Your task to perform on an android device: toggle improve location accuracy Image 0: 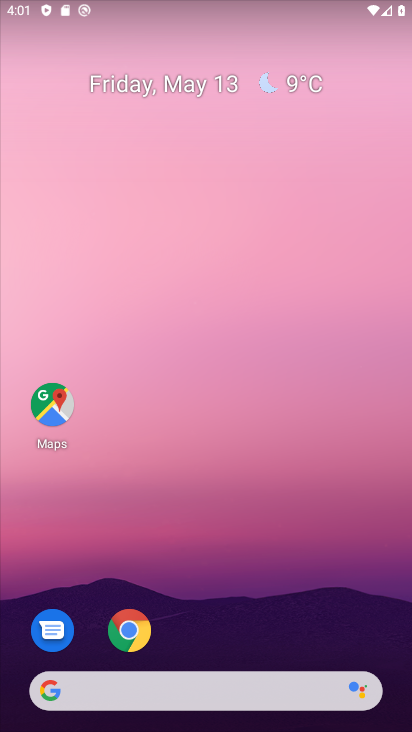
Step 0: drag from (252, 522) to (246, 16)
Your task to perform on an android device: toggle improve location accuracy Image 1: 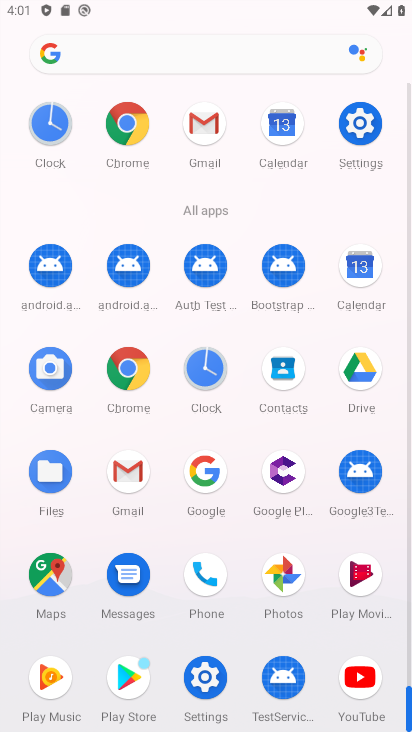
Step 1: click (201, 678)
Your task to perform on an android device: toggle improve location accuracy Image 2: 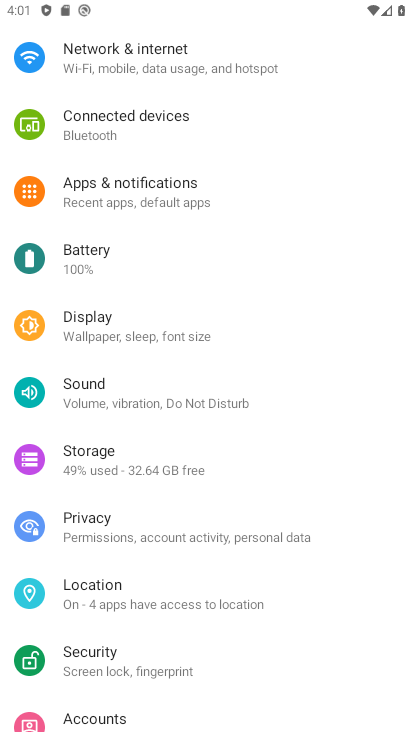
Step 2: click (110, 584)
Your task to perform on an android device: toggle improve location accuracy Image 3: 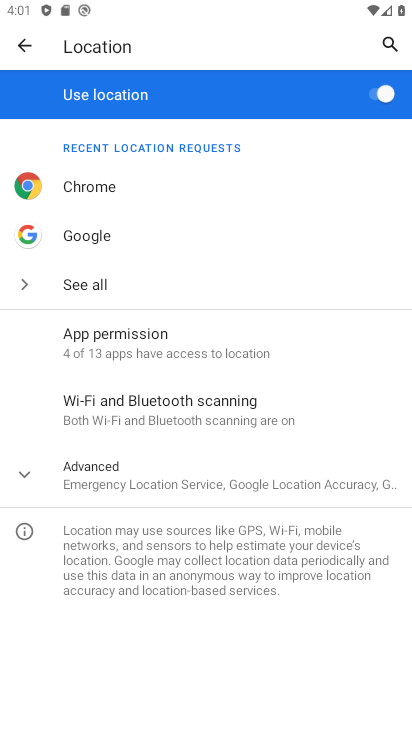
Step 3: click (42, 473)
Your task to perform on an android device: toggle improve location accuracy Image 4: 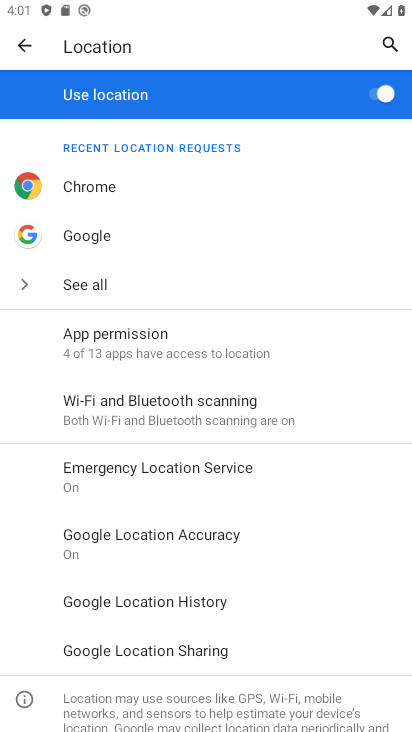
Step 4: click (211, 539)
Your task to perform on an android device: toggle improve location accuracy Image 5: 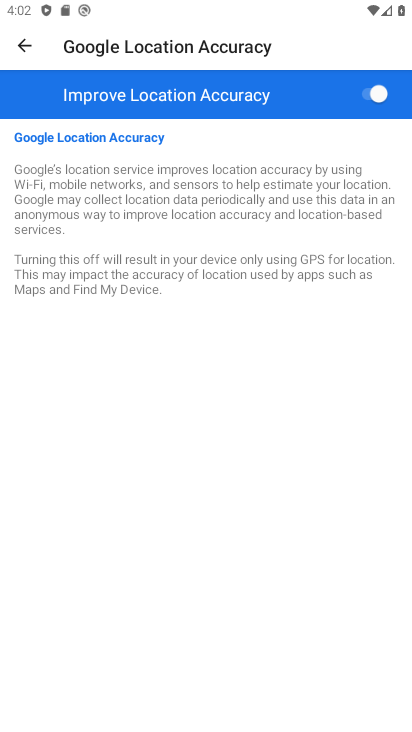
Step 5: click (363, 92)
Your task to perform on an android device: toggle improve location accuracy Image 6: 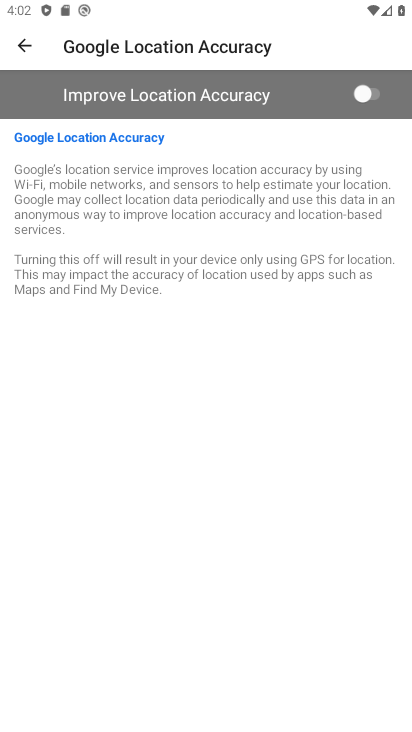
Step 6: task complete